Your task to perform on an android device: Go to sound settings Image 0: 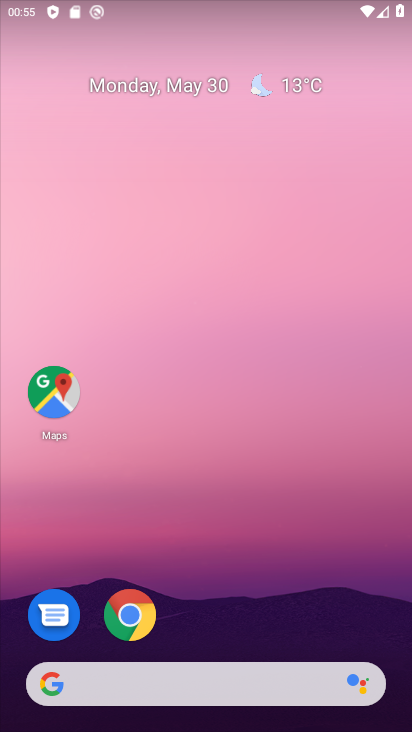
Step 0: drag from (209, 653) to (162, 38)
Your task to perform on an android device: Go to sound settings Image 1: 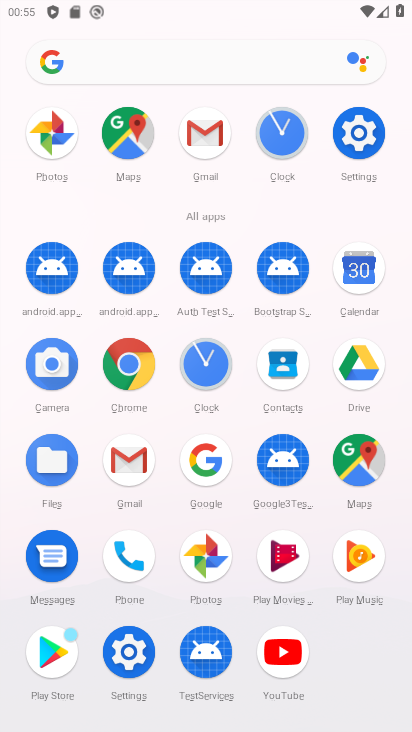
Step 1: click (365, 143)
Your task to perform on an android device: Go to sound settings Image 2: 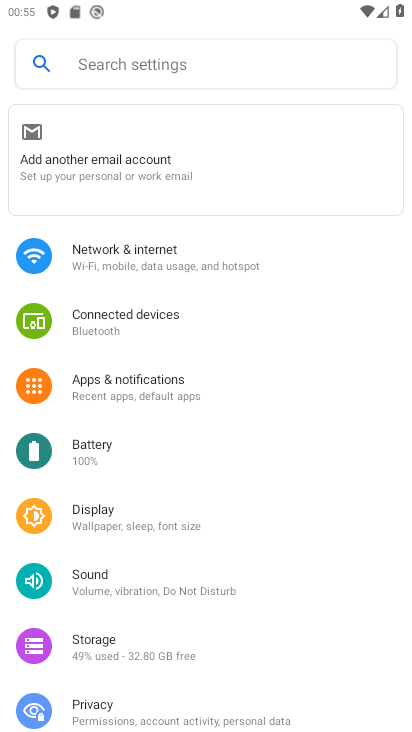
Step 2: click (98, 585)
Your task to perform on an android device: Go to sound settings Image 3: 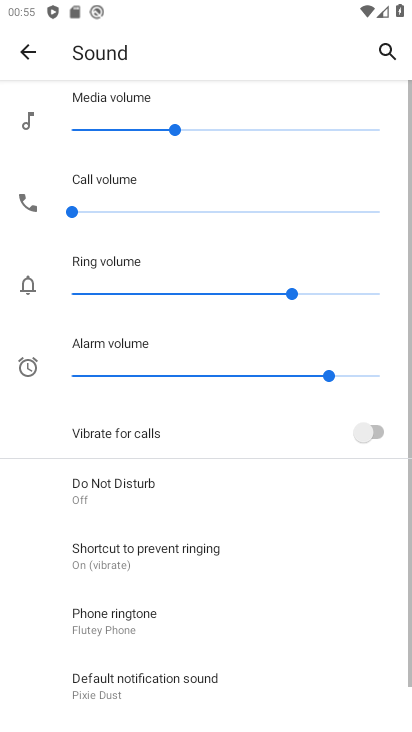
Step 3: task complete